Your task to perform on an android device: turn off sleep mode Image 0: 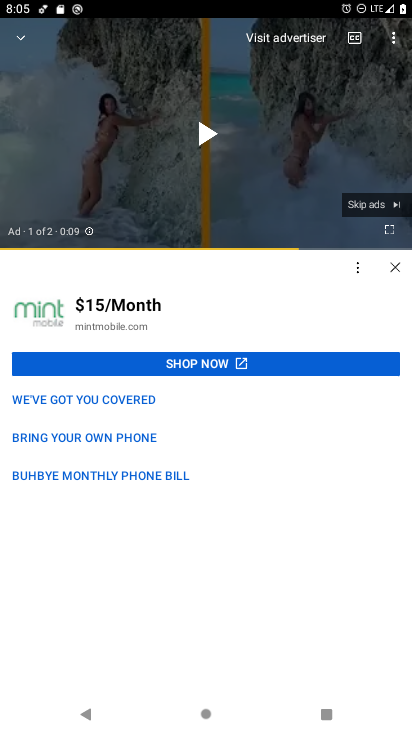
Step 0: press home button
Your task to perform on an android device: turn off sleep mode Image 1: 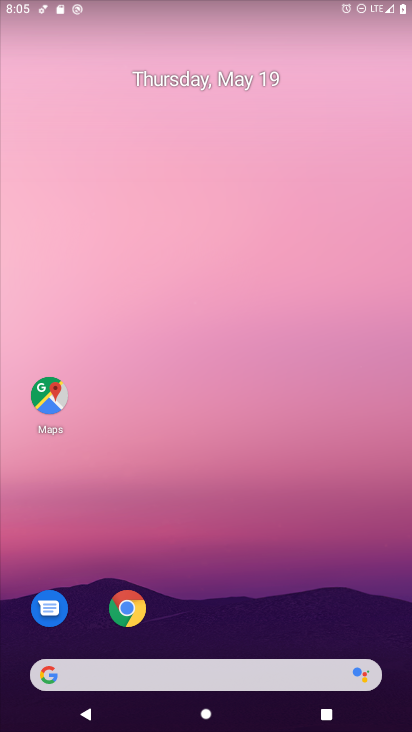
Step 1: drag from (392, 681) to (317, 195)
Your task to perform on an android device: turn off sleep mode Image 2: 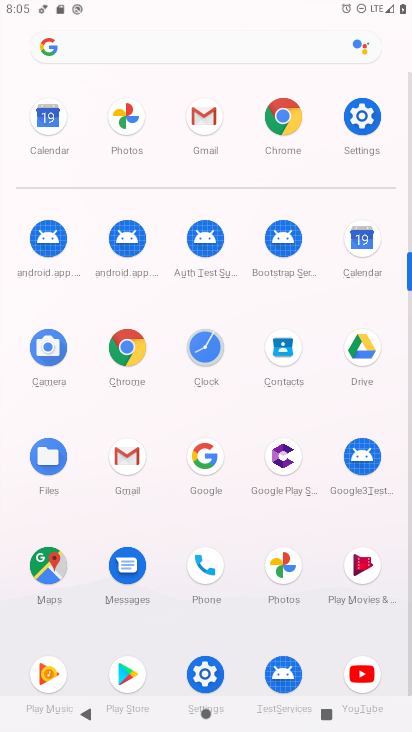
Step 2: click (368, 109)
Your task to perform on an android device: turn off sleep mode Image 3: 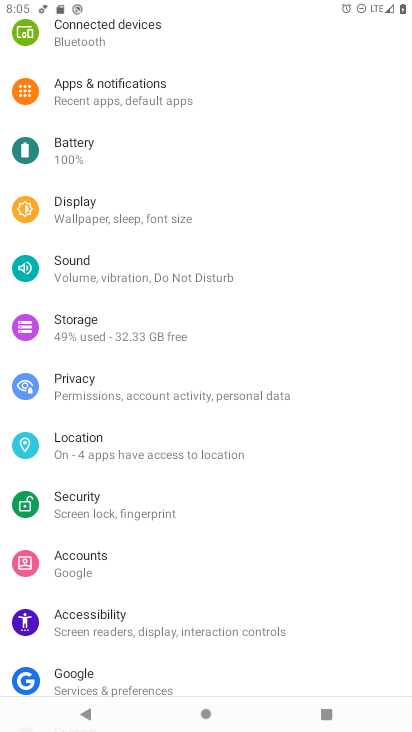
Step 3: click (113, 214)
Your task to perform on an android device: turn off sleep mode Image 4: 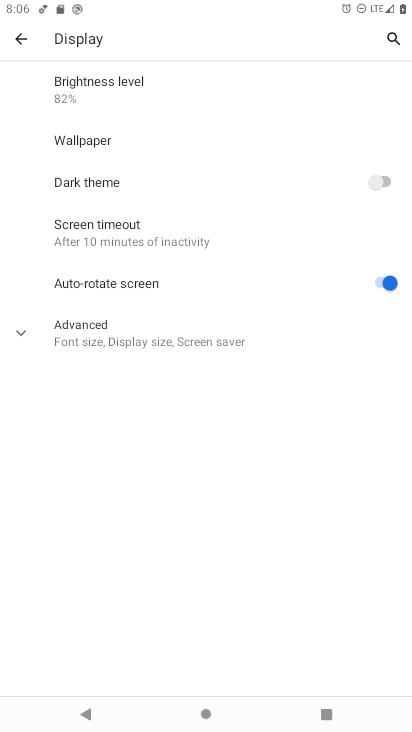
Step 4: click (113, 232)
Your task to perform on an android device: turn off sleep mode Image 5: 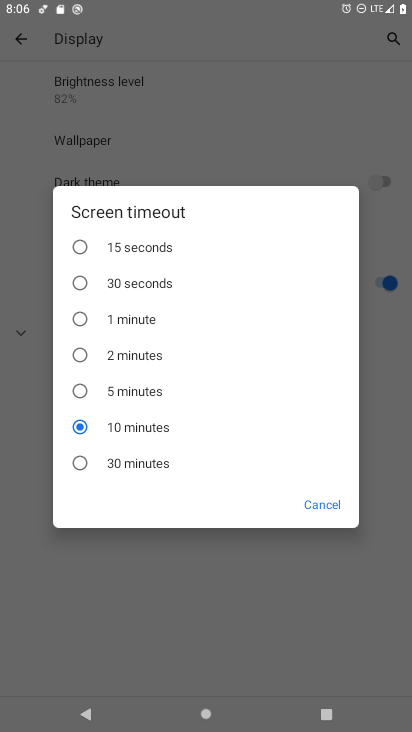
Step 5: click (113, 232)
Your task to perform on an android device: turn off sleep mode Image 6: 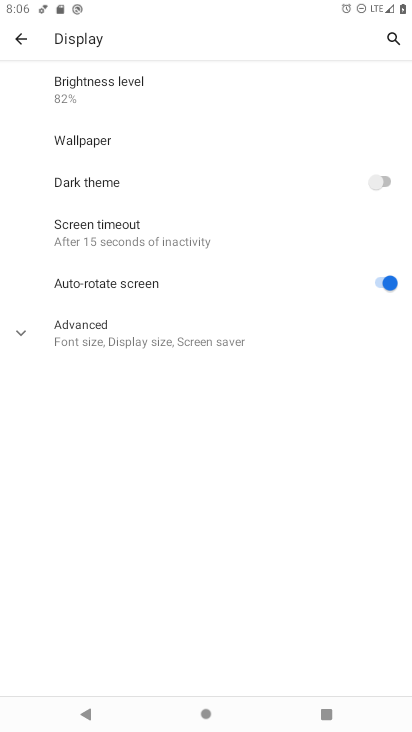
Step 6: click (113, 232)
Your task to perform on an android device: turn off sleep mode Image 7: 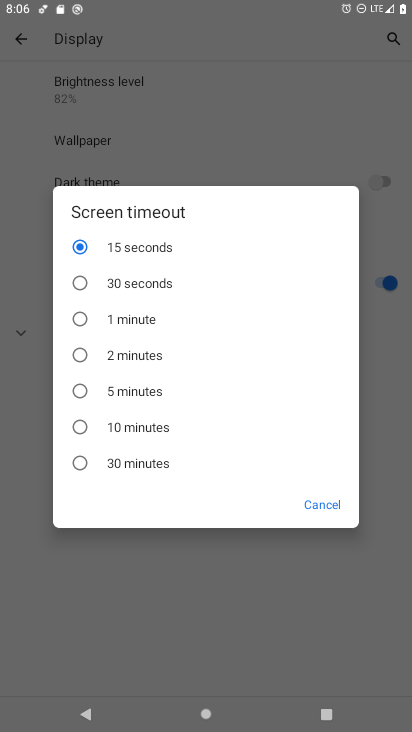
Step 7: click (74, 427)
Your task to perform on an android device: turn off sleep mode Image 8: 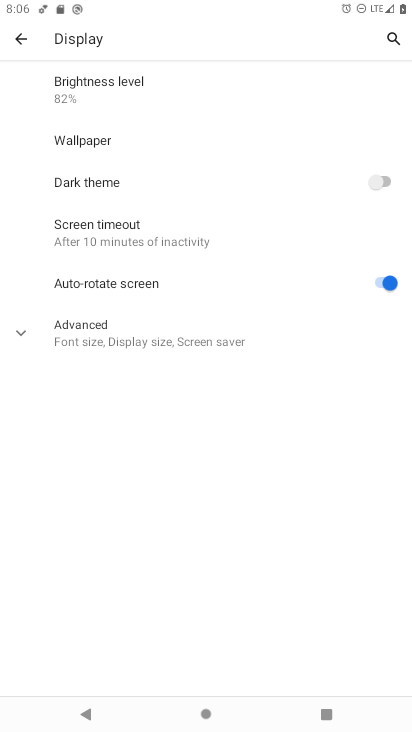
Step 8: task complete